Your task to perform on an android device: turn vacation reply on in the gmail app Image 0: 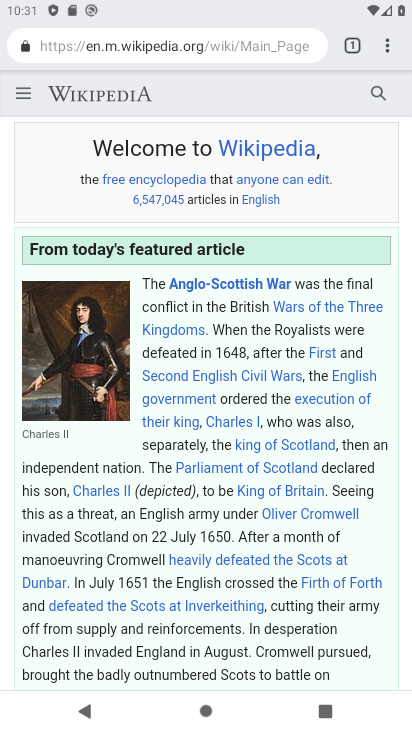
Step 0: press home button
Your task to perform on an android device: turn vacation reply on in the gmail app Image 1: 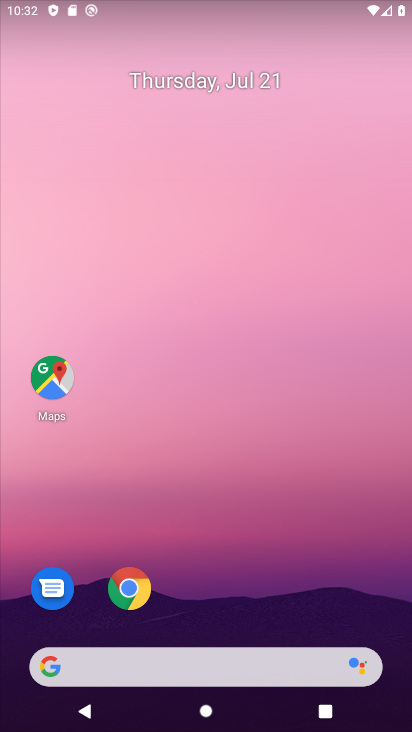
Step 1: drag from (234, 470) to (203, 96)
Your task to perform on an android device: turn vacation reply on in the gmail app Image 2: 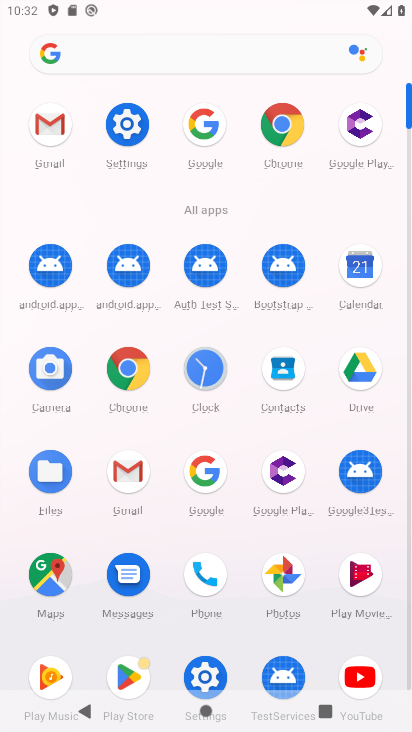
Step 2: click (53, 128)
Your task to perform on an android device: turn vacation reply on in the gmail app Image 3: 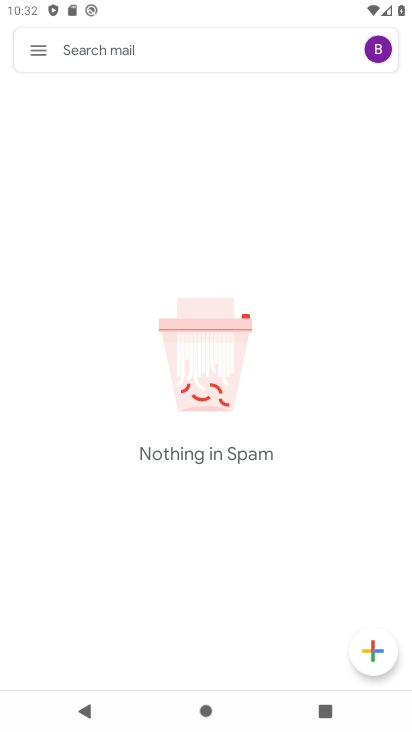
Step 3: click (37, 61)
Your task to perform on an android device: turn vacation reply on in the gmail app Image 4: 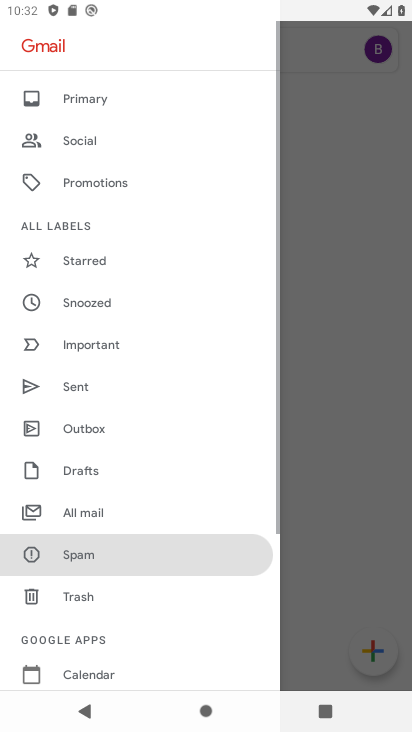
Step 4: drag from (141, 424) to (139, 57)
Your task to perform on an android device: turn vacation reply on in the gmail app Image 5: 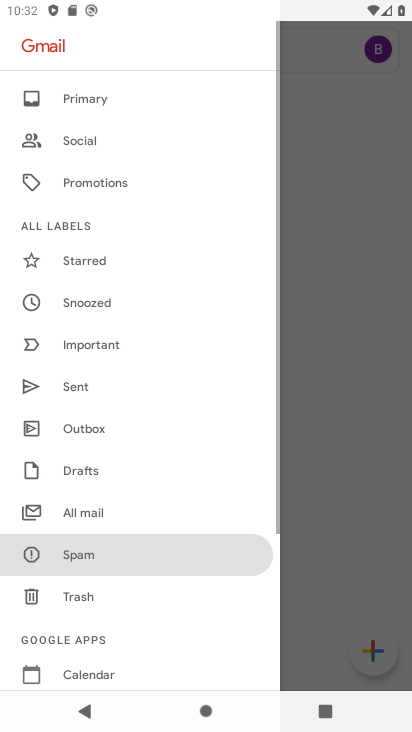
Step 5: drag from (120, 551) to (178, 183)
Your task to perform on an android device: turn vacation reply on in the gmail app Image 6: 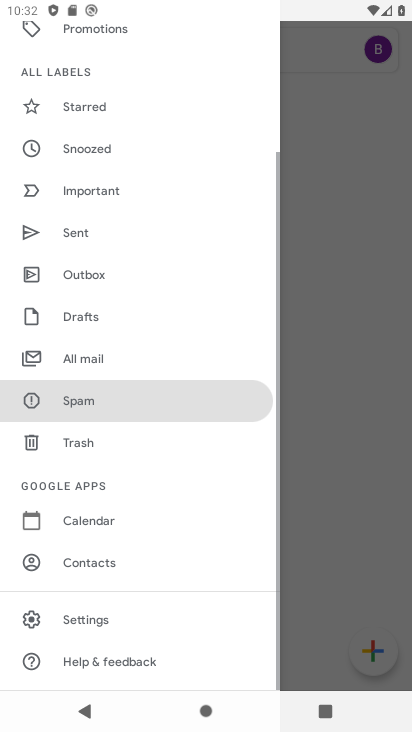
Step 6: click (104, 616)
Your task to perform on an android device: turn vacation reply on in the gmail app Image 7: 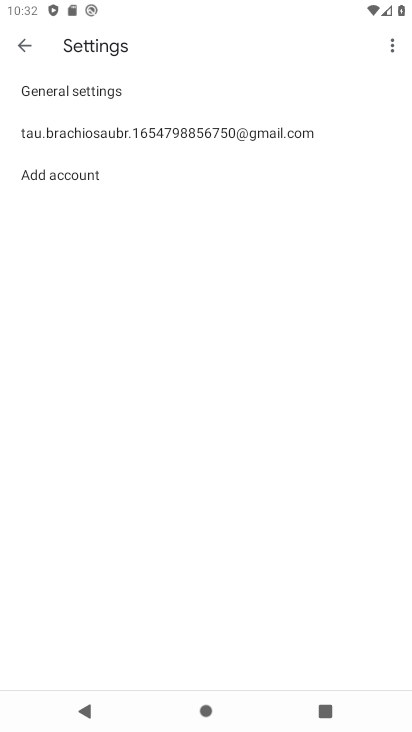
Step 7: click (73, 143)
Your task to perform on an android device: turn vacation reply on in the gmail app Image 8: 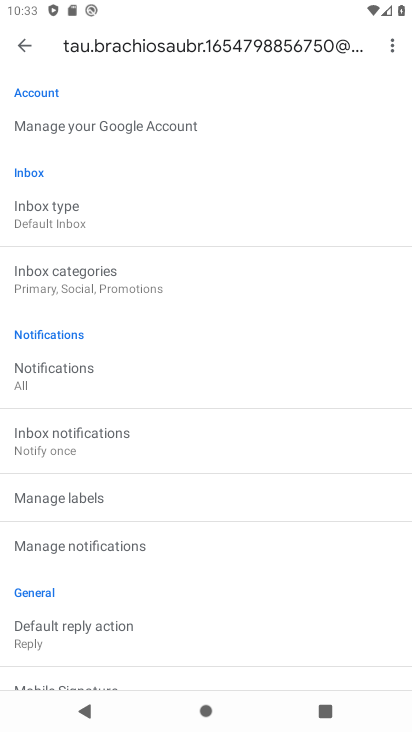
Step 8: drag from (151, 621) to (160, 209)
Your task to perform on an android device: turn vacation reply on in the gmail app Image 9: 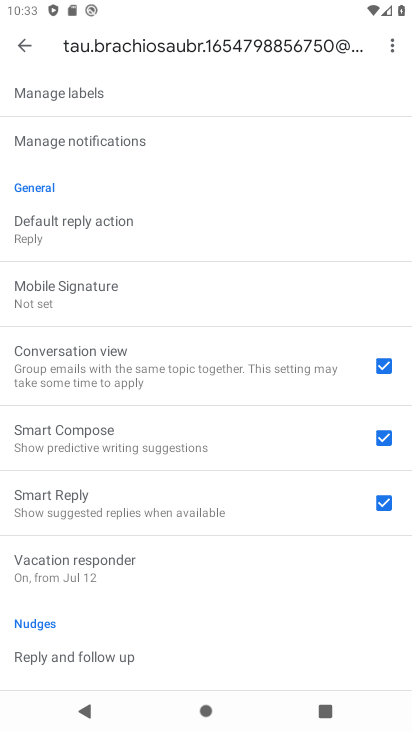
Step 9: drag from (157, 217) to (276, 704)
Your task to perform on an android device: turn vacation reply on in the gmail app Image 10: 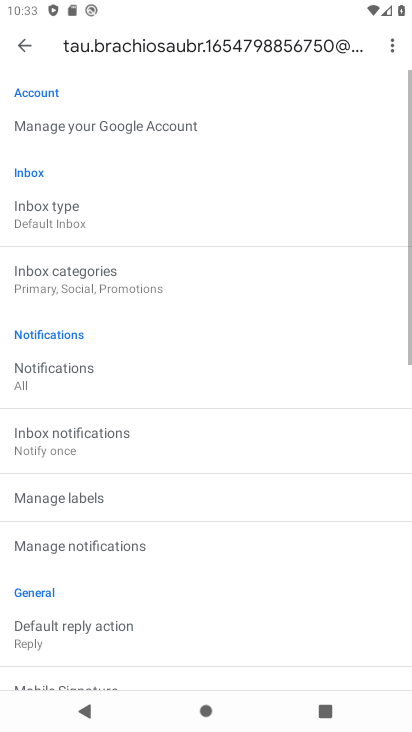
Step 10: drag from (207, 573) to (154, 166)
Your task to perform on an android device: turn vacation reply on in the gmail app Image 11: 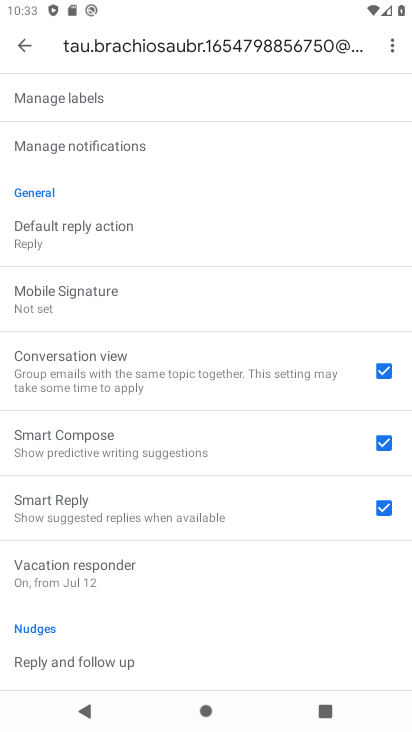
Step 11: click (150, 582)
Your task to perform on an android device: turn vacation reply on in the gmail app Image 12: 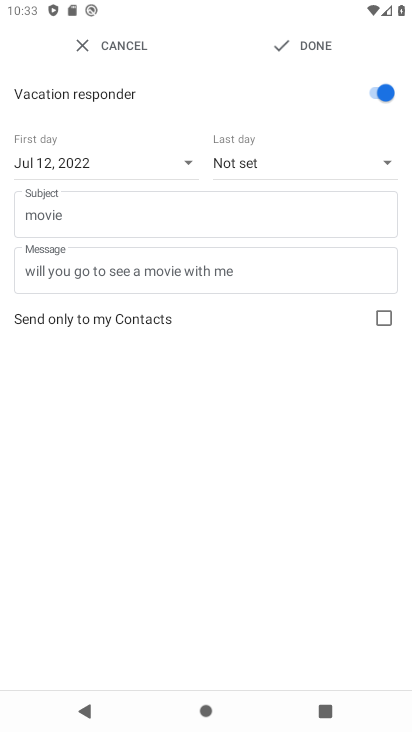
Step 12: task complete